Your task to perform on an android device: change keyboard looks Image 0: 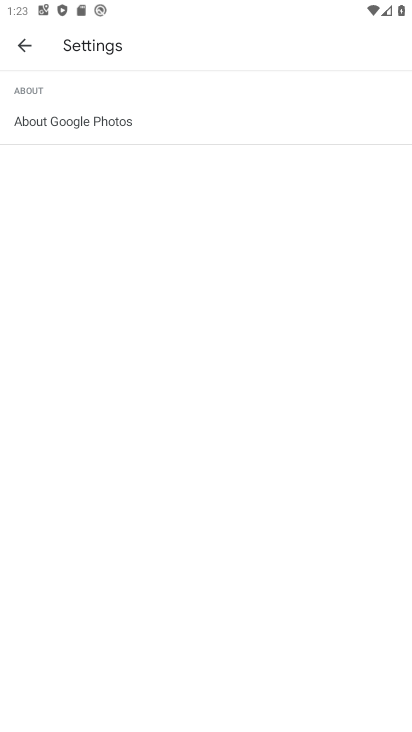
Step 0: press home button
Your task to perform on an android device: change keyboard looks Image 1: 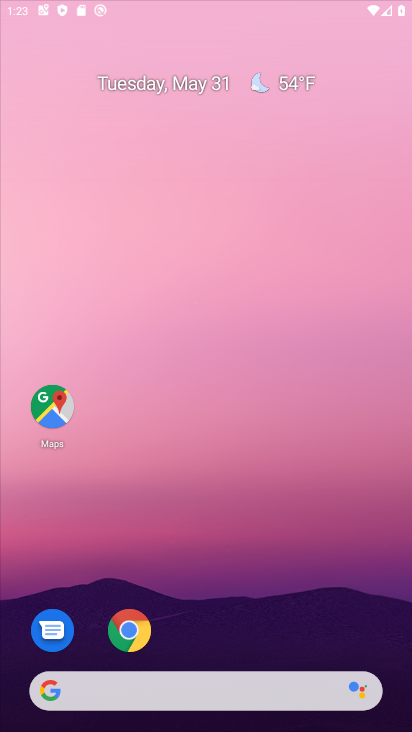
Step 1: drag from (218, 632) to (285, 23)
Your task to perform on an android device: change keyboard looks Image 2: 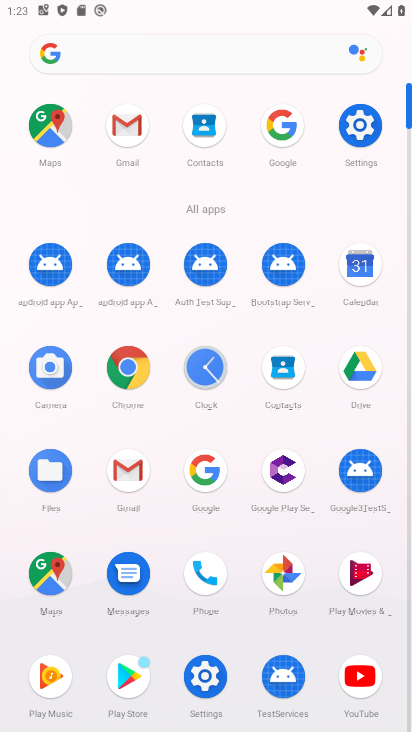
Step 2: click (368, 129)
Your task to perform on an android device: change keyboard looks Image 3: 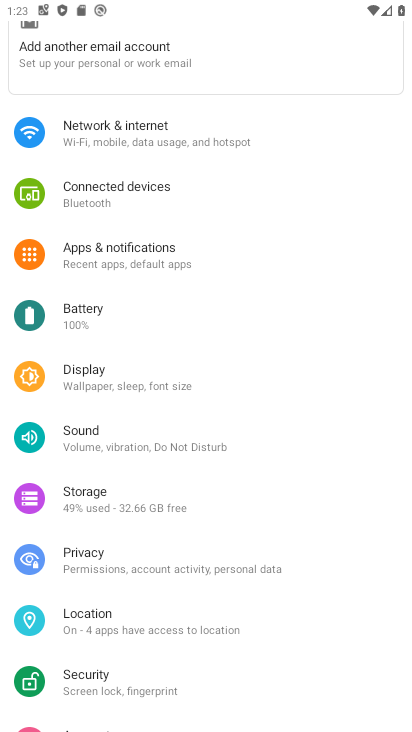
Step 3: drag from (55, 625) to (109, 176)
Your task to perform on an android device: change keyboard looks Image 4: 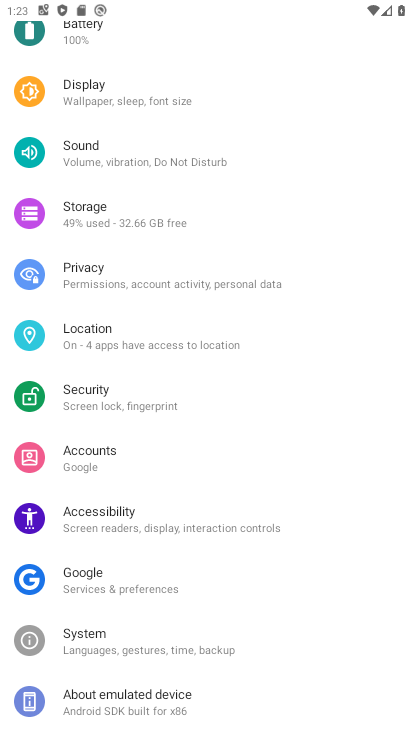
Step 4: click (78, 634)
Your task to perform on an android device: change keyboard looks Image 5: 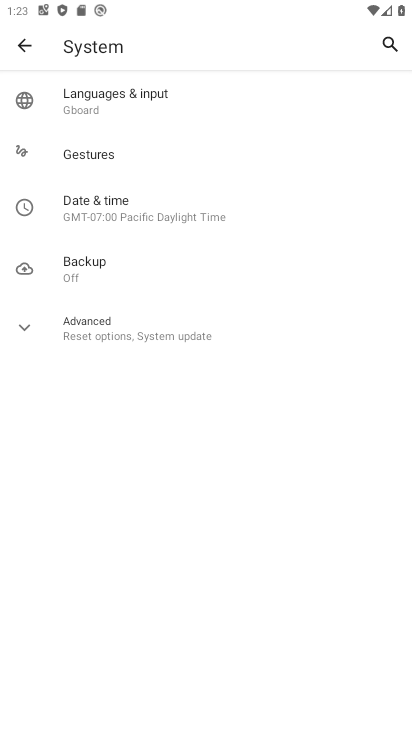
Step 5: click (93, 110)
Your task to perform on an android device: change keyboard looks Image 6: 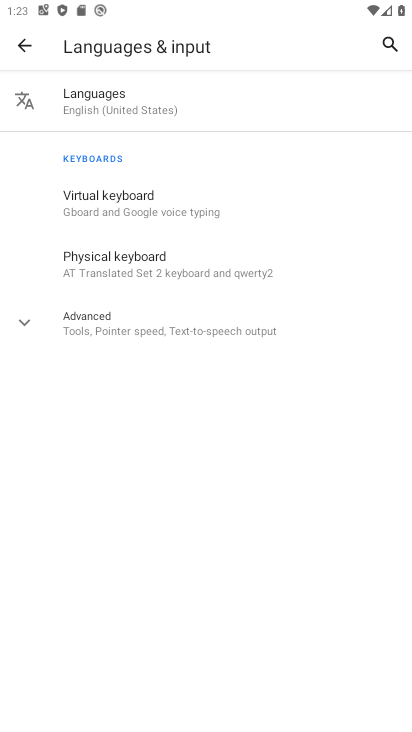
Step 6: click (124, 195)
Your task to perform on an android device: change keyboard looks Image 7: 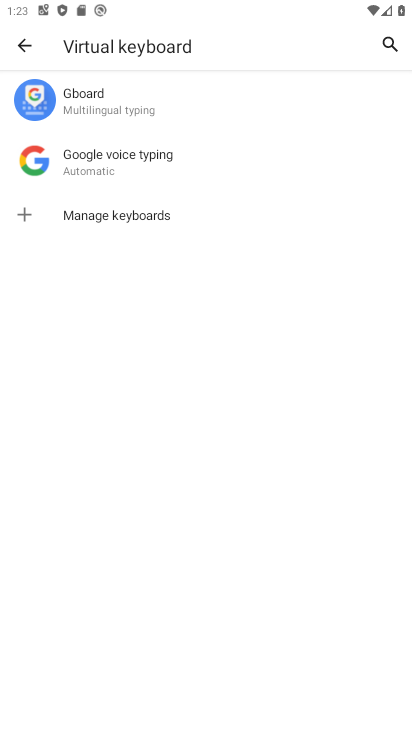
Step 7: click (119, 103)
Your task to perform on an android device: change keyboard looks Image 8: 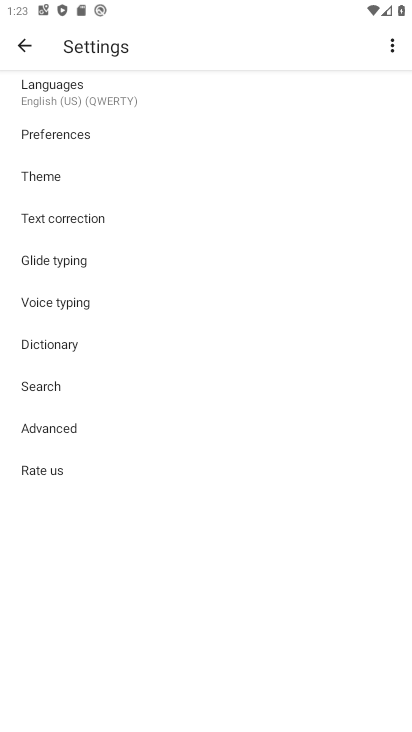
Step 8: click (98, 177)
Your task to perform on an android device: change keyboard looks Image 9: 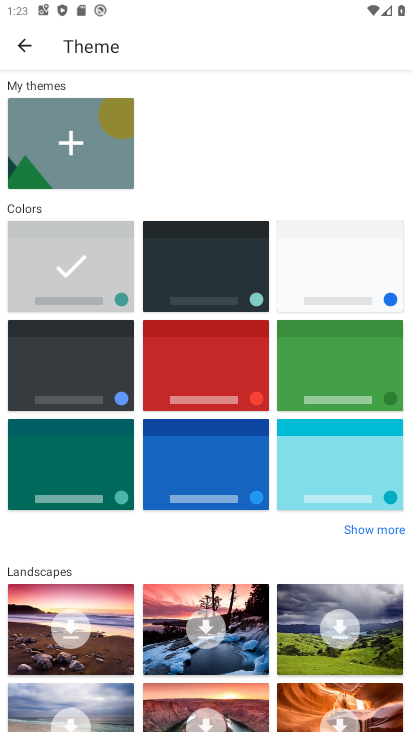
Step 9: click (218, 280)
Your task to perform on an android device: change keyboard looks Image 10: 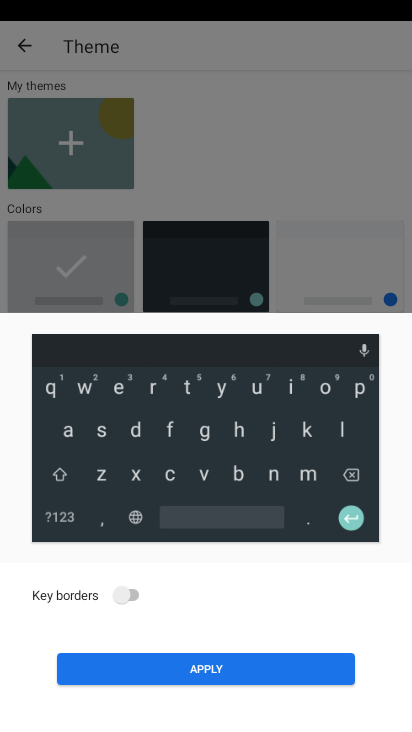
Step 10: click (206, 670)
Your task to perform on an android device: change keyboard looks Image 11: 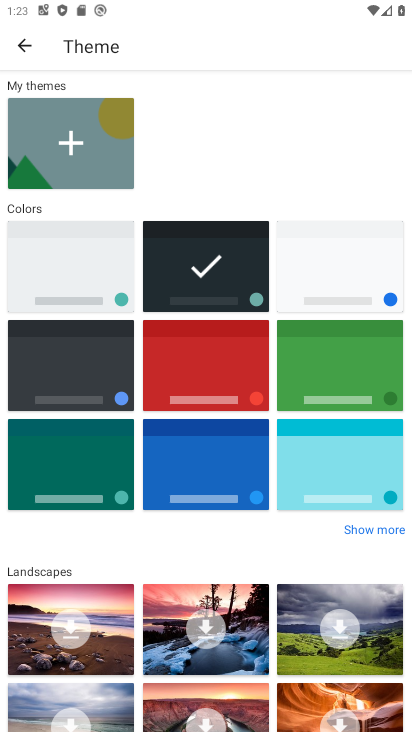
Step 11: task complete